Your task to perform on an android device: What's the weather today? Image 0: 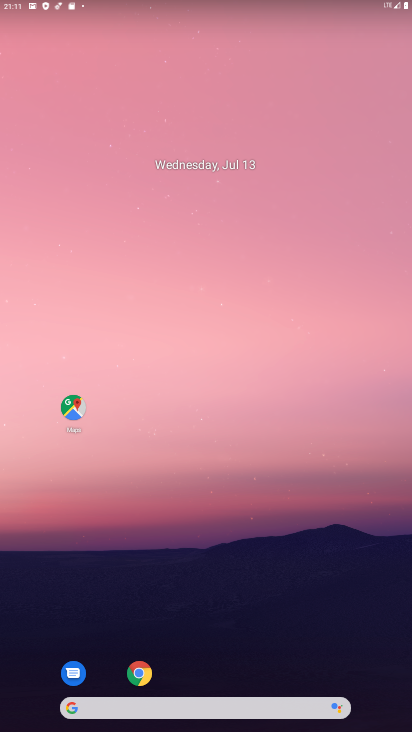
Step 0: drag from (240, 445) to (217, 205)
Your task to perform on an android device: What's the weather today? Image 1: 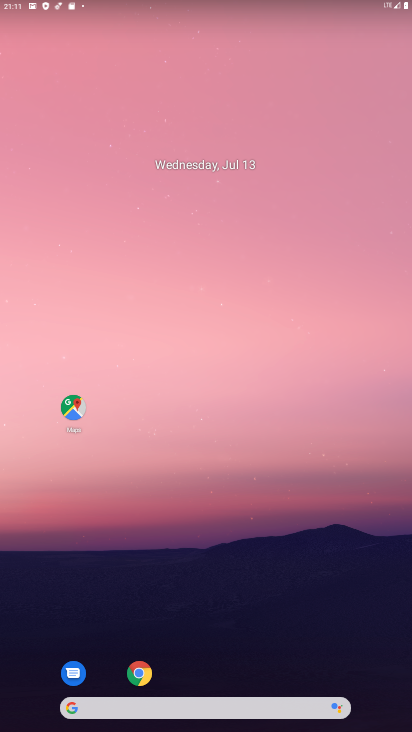
Step 1: click (176, 371)
Your task to perform on an android device: What's the weather today? Image 2: 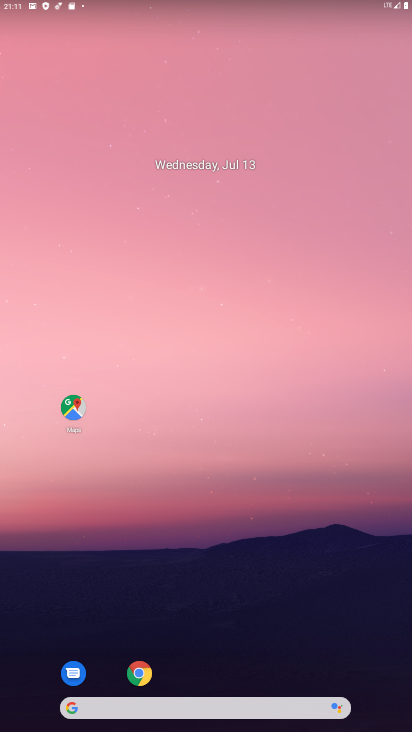
Step 2: drag from (179, 669) to (239, 59)
Your task to perform on an android device: What's the weather today? Image 3: 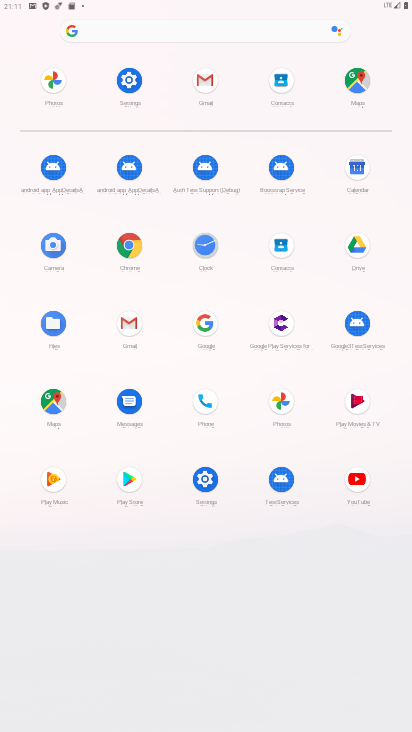
Step 3: click (149, 29)
Your task to perform on an android device: What's the weather today? Image 4: 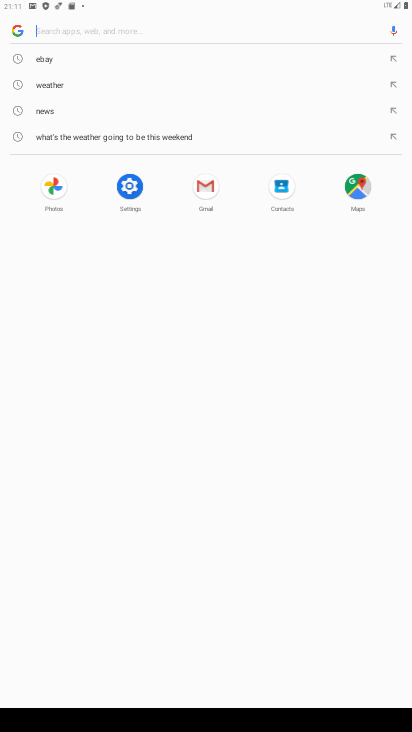
Step 4: click (57, 89)
Your task to perform on an android device: What's the weather today? Image 5: 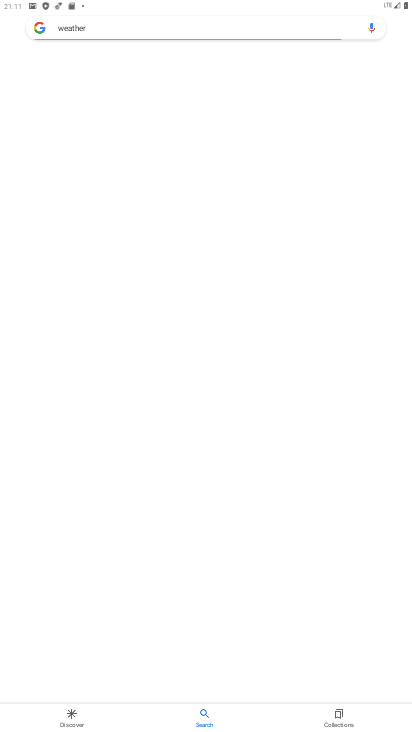
Step 5: task complete